Your task to perform on an android device: Search for "usb-c to usb-b" on target, select the first entry, and add it to the cart. Image 0: 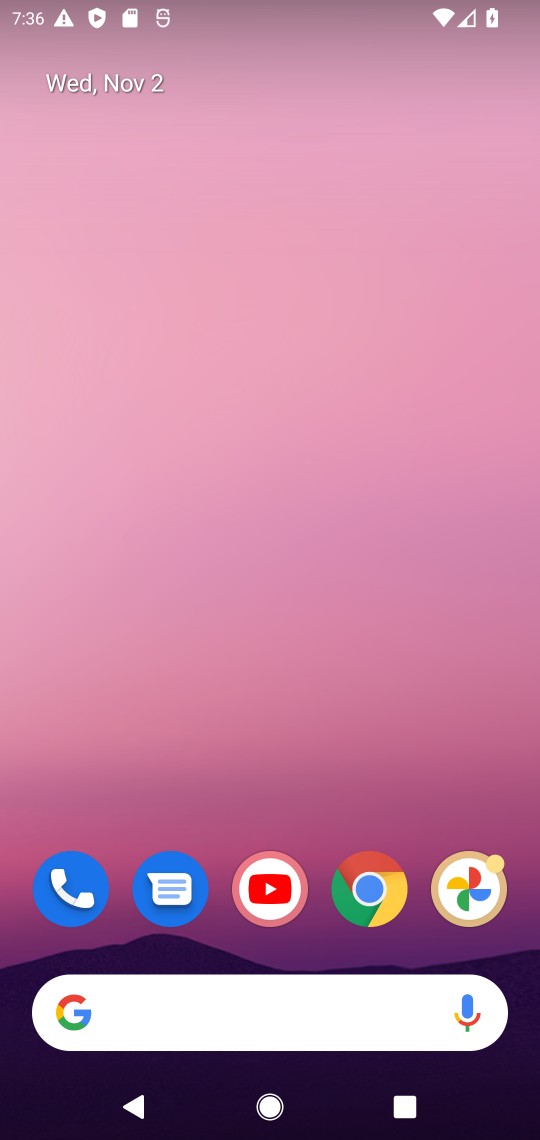
Step 0: drag from (277, 292) to (275, 82)
Your task to perform on an android device: Search for "usb-c to usb-b" on target, select the first entry, and add it to the cart. Image 1: 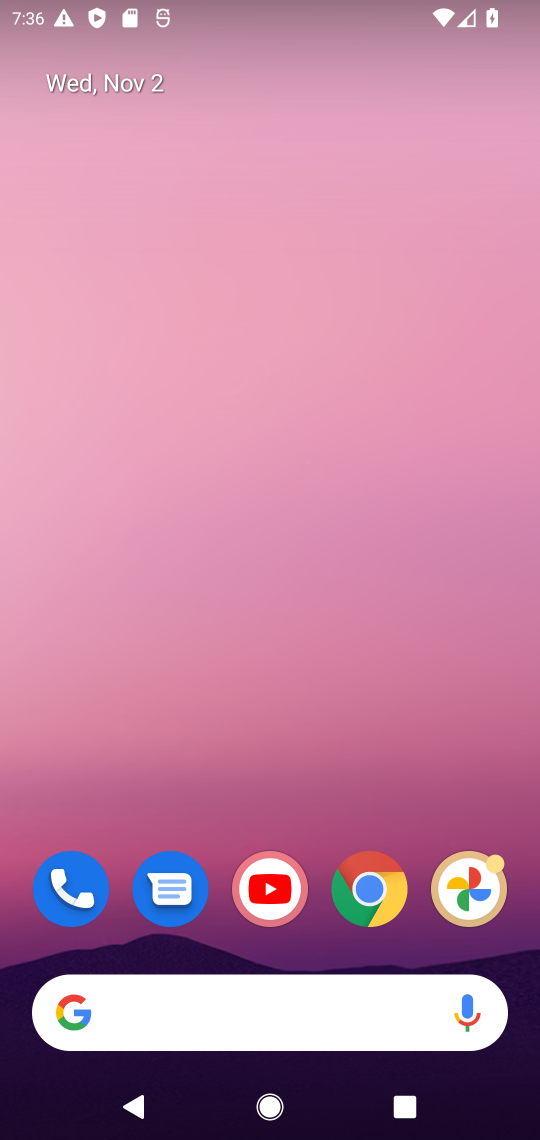
Step 1: drag from (310, 845) to (345, 50)
Your task to perform on an android device: Search for "usb-c to usb-b" on target, select the first entry, and add it to the cart. Image 2: 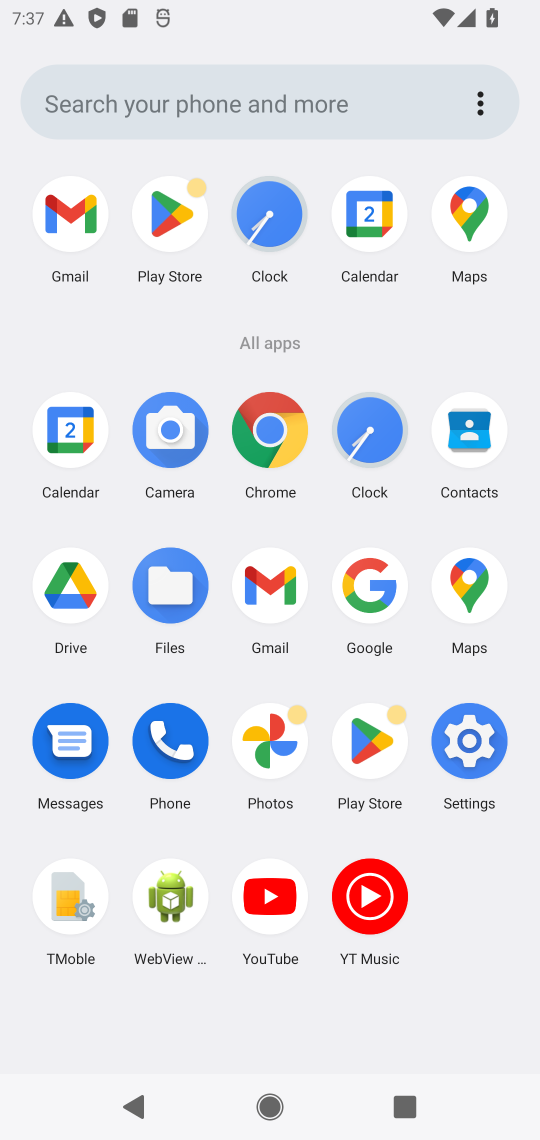
Step 2: click (279, 425)
Your task to perform on an android device: Search for "usb-c to usb-b" on target, select the first entry, and add it to the cart. Image 3: 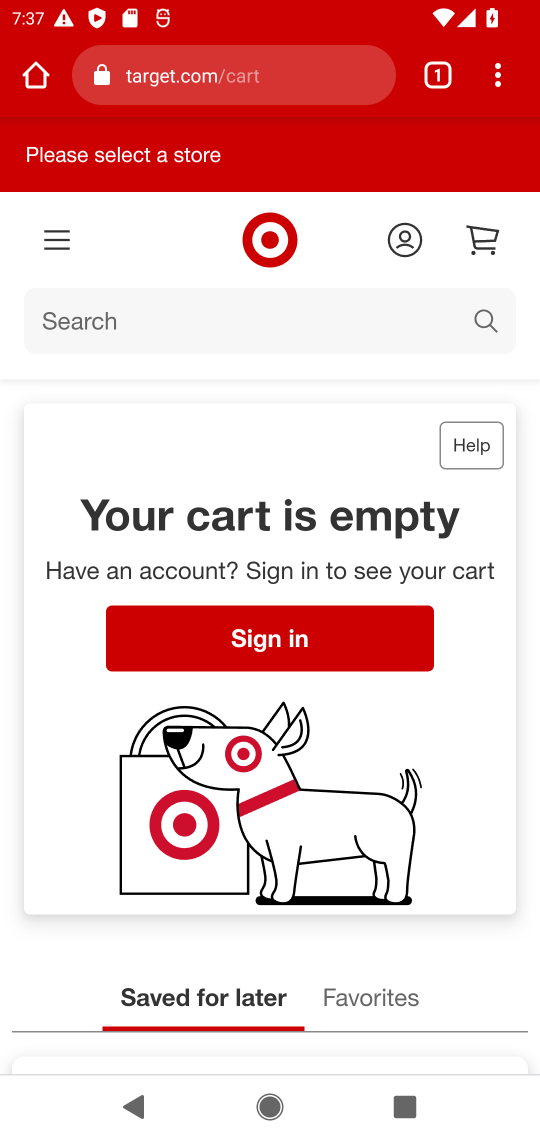
Step 3: click (324, 318)
Your task to perform on an android device: Search for "usb-c to usb-b" on target, select the first entry, and add it to the cart. Image 4: 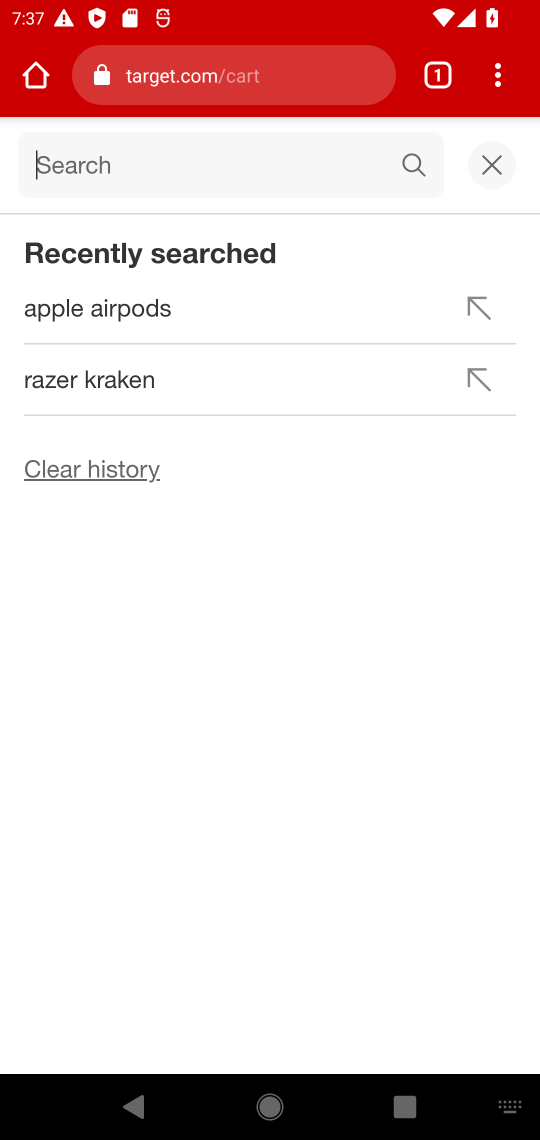
Step 4: type "usb-c to usb-b"
Your task to perform on an android device: Search for "usb-c to usb-b" on target, select the first entry, and add it to the cart. Image 5: 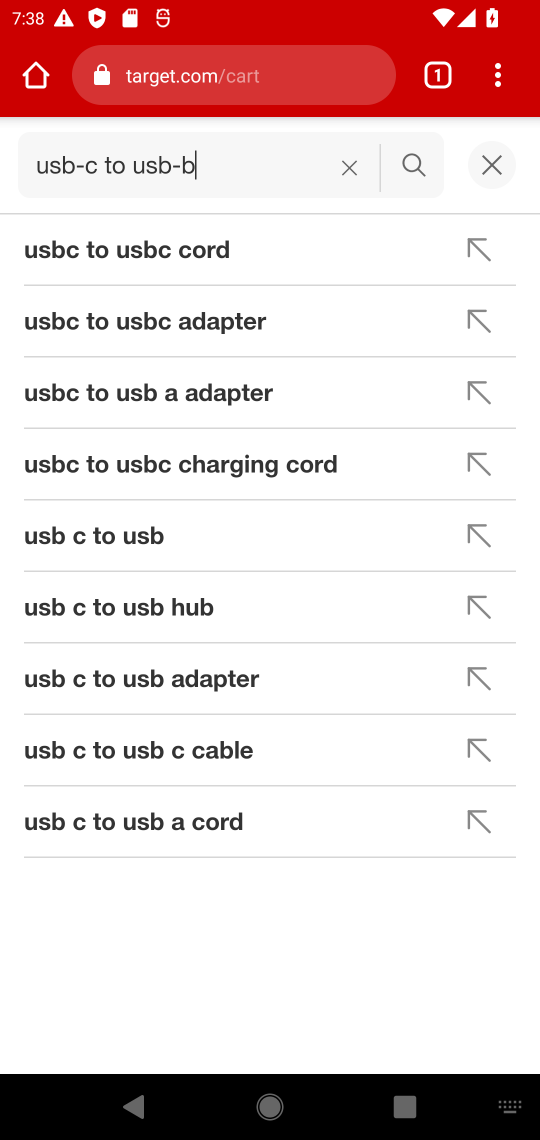
Step 5: click (136, 267)
Your task to perform on an android device: Search for "usb-c to usb-b" on target, select the first entry, and add it to the cart. Image 6: 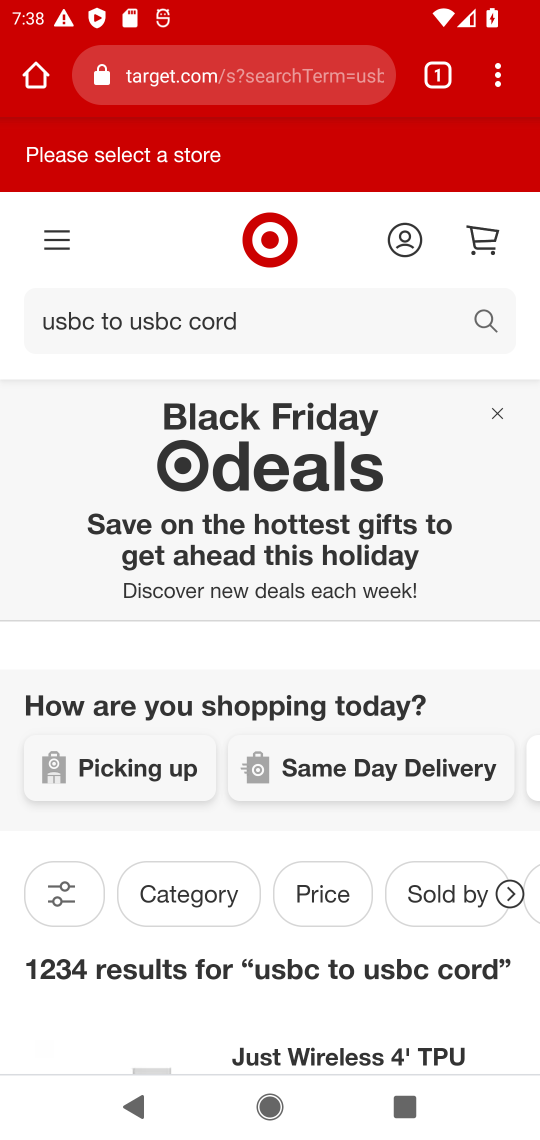
Step 6: drag from (267, 847) to (279, 258)
Your task to perform on an android device: Search for "usb-c to usb-b" on target, select the first entry, and add it to the cart. Image 7: 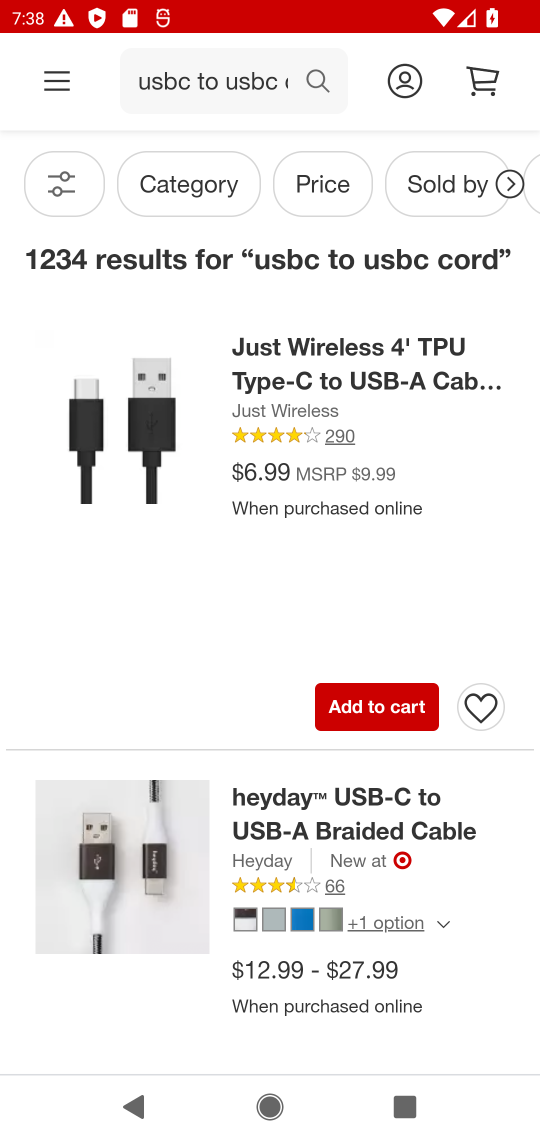
Step 7: click (227, 376)
Your task to perform on an android device: Search for "usb-c to usb-b" on target, select the first entry, and add it to the cart. Image 8: 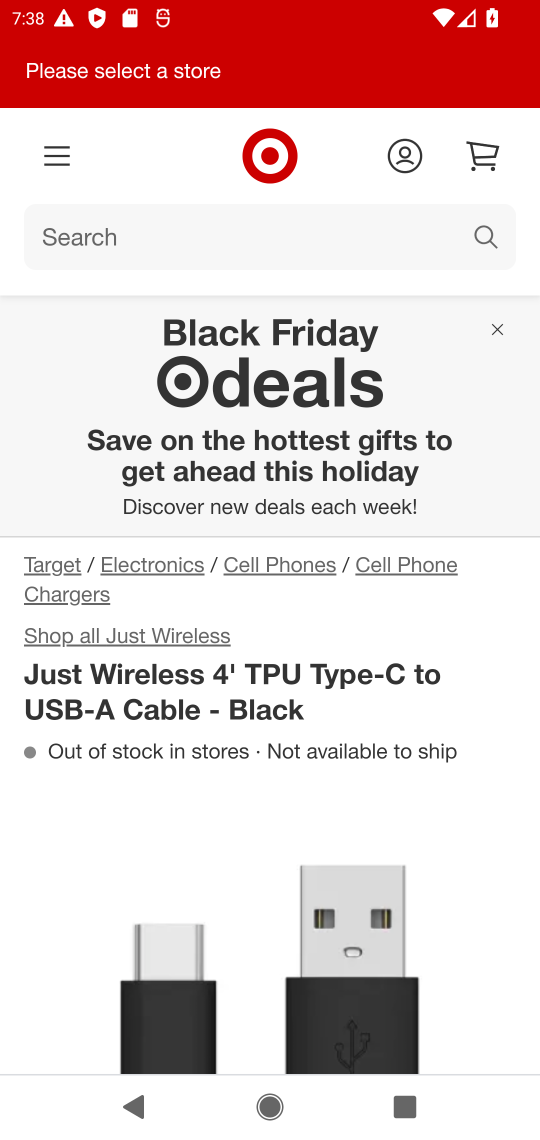
Step 8: drag from (251, 908) to (242, 383)
Your task to perform on an android device: Search for "usb-c to usb-b" on target, select the first entry, and add it to the cart. Image 9: 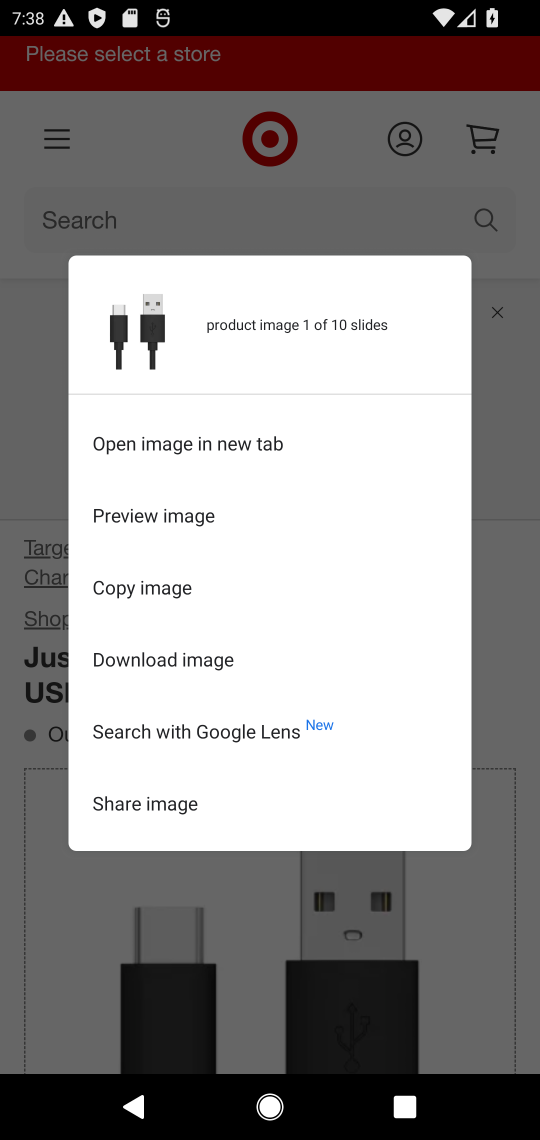
Step 9: click (30, 423)
Your task to perform on an android device: Search for "usb-c to usb-b" on target, select the first entry, and add it to the cart. Image 10: 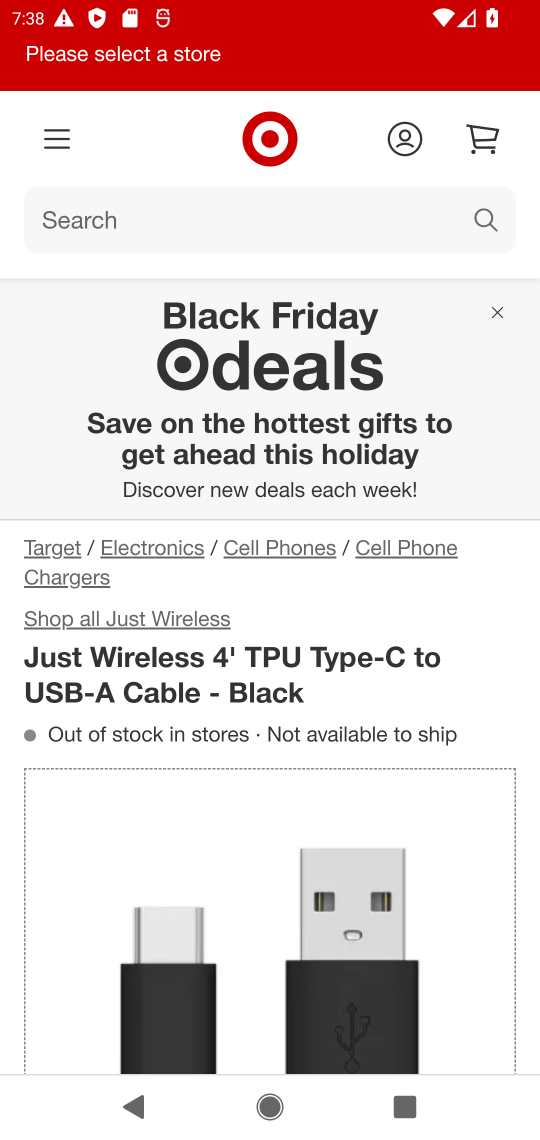
Step 10: drag from (497, 1005) to (480, 319)
Your task to perform on an android device: Search for "usb-c to usb-b" on target, select the first entry, and add it to the cart. Image 11: 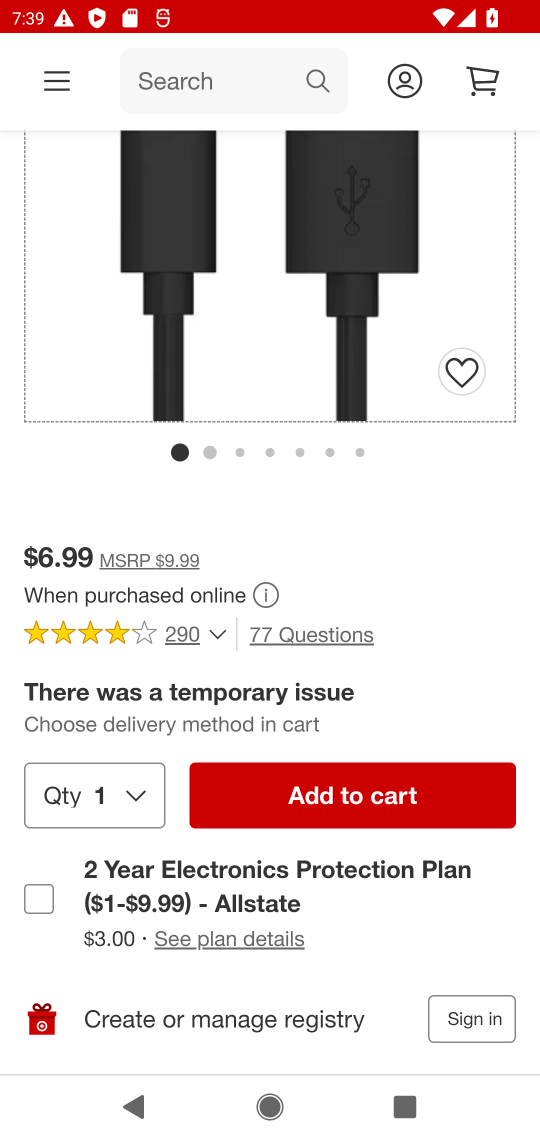
Step 11: click (352, 791)
Your task to perform on an android device: Search for "usb-c to usb-b" on target, select the first entry, and add it to the cart. Image 12: 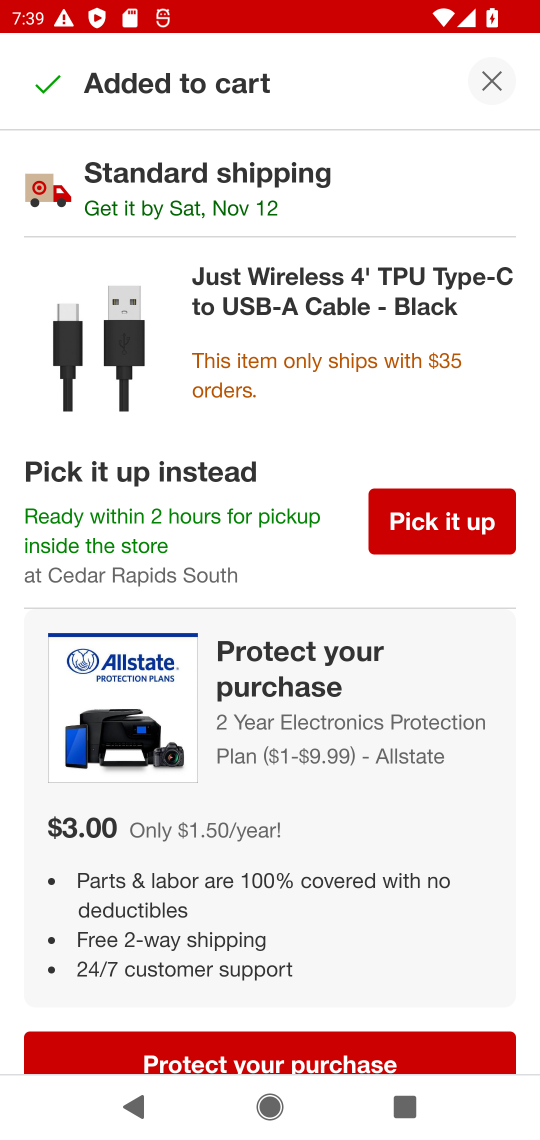
Step 12: click (495, 79)
Your task to perform on an android device: Search for "usb-c to usb-b" on target, select the first entry, and add it to the cart. Image 13: 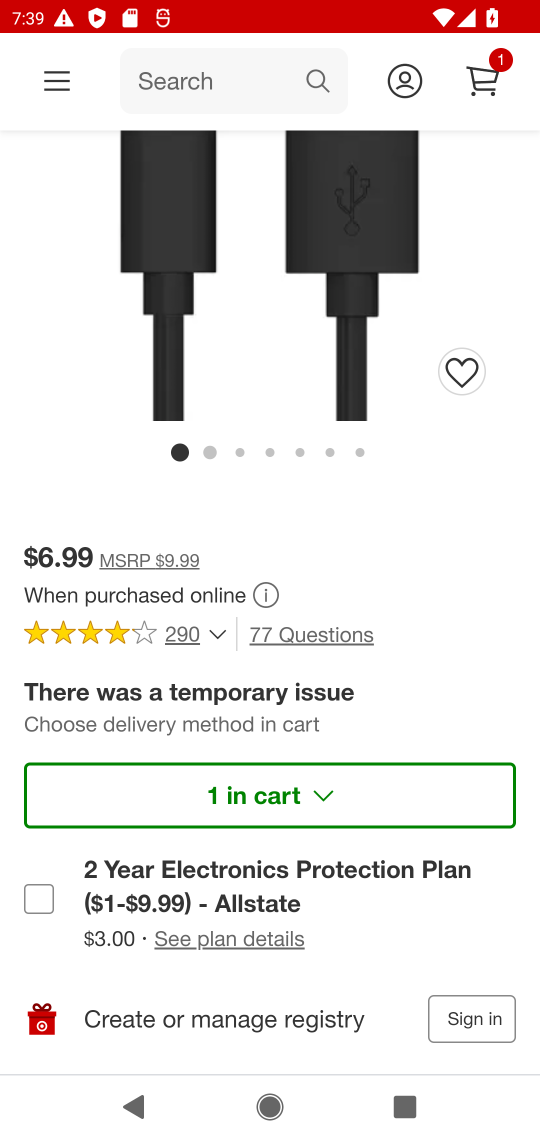
Step 13: click (493, 71)
Your task to perform on an android device: Search for "usb-c to usb-b" on target, select the first entry, and add it to the cart. Image 14: 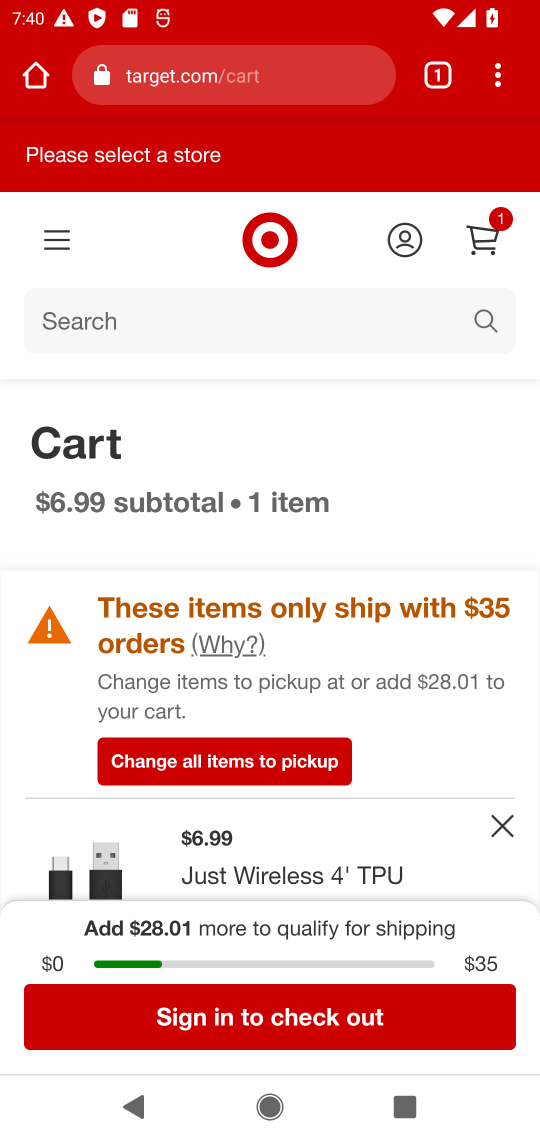
Step 14: task complete